Your task to perform on an android device: Go to notification settings Image 0: 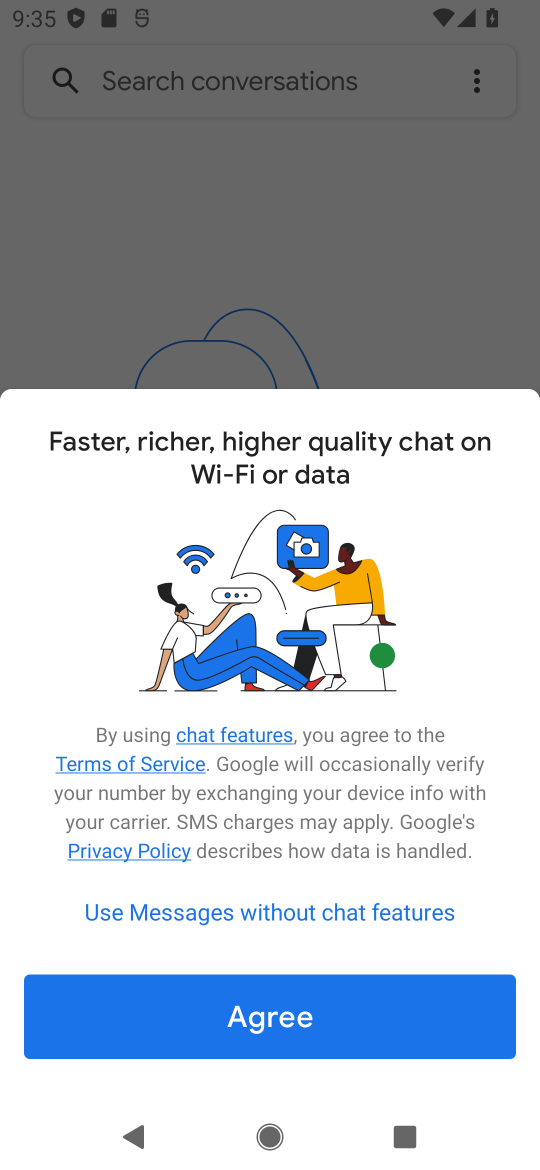
Step 0: press home button
Your task to perform on an android device: Go to notification settings Image 1: 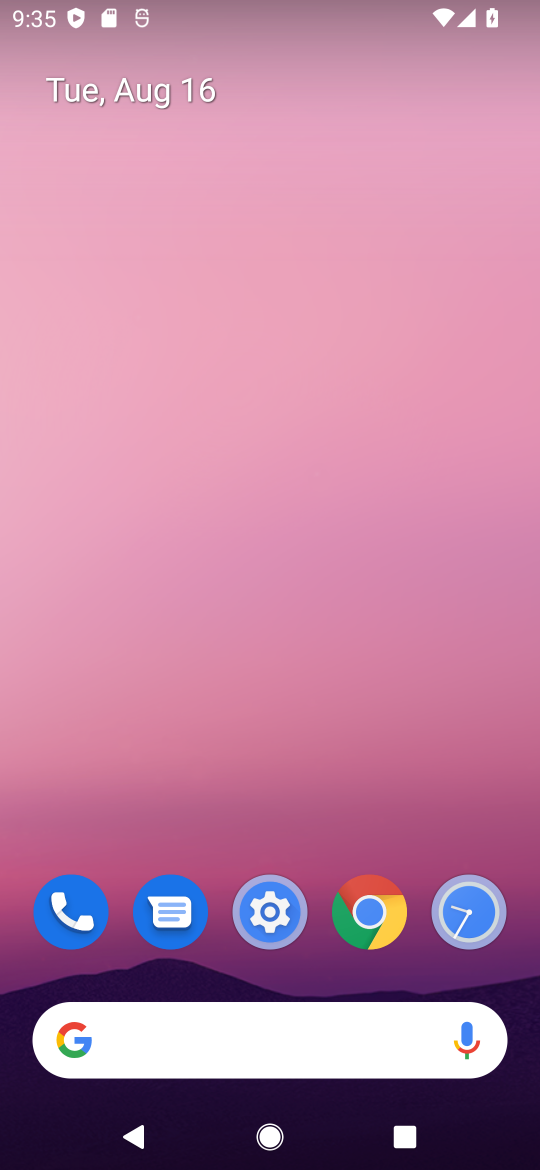
Step 1: click (266, 900)
Your task to perform on an android device: Go to notification settings Image 2: 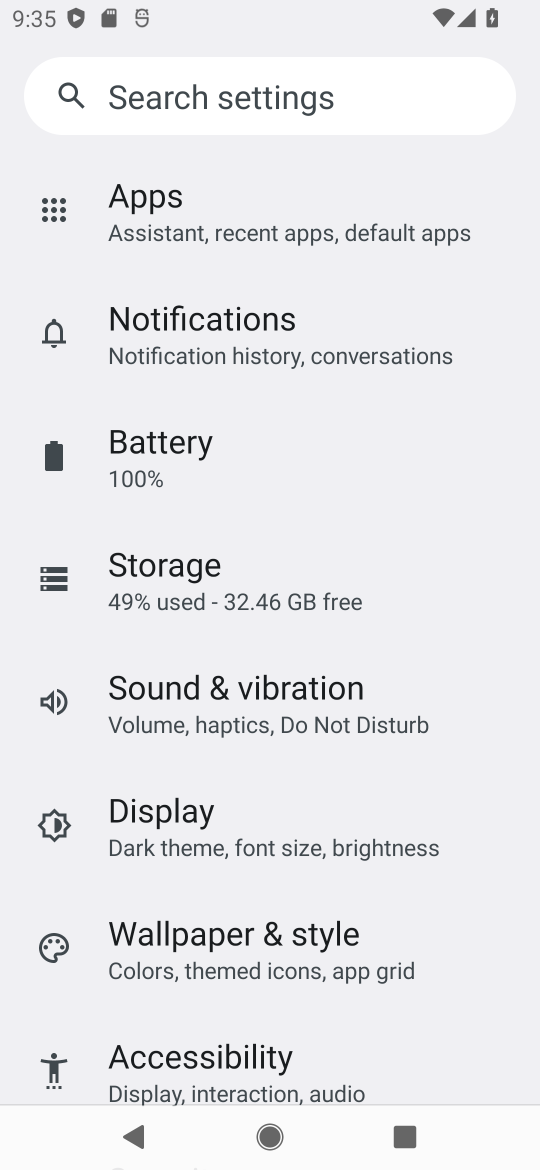
Step 2: click (177, 304)
Your task to perform on an android device: Go to notification settings Image 3: 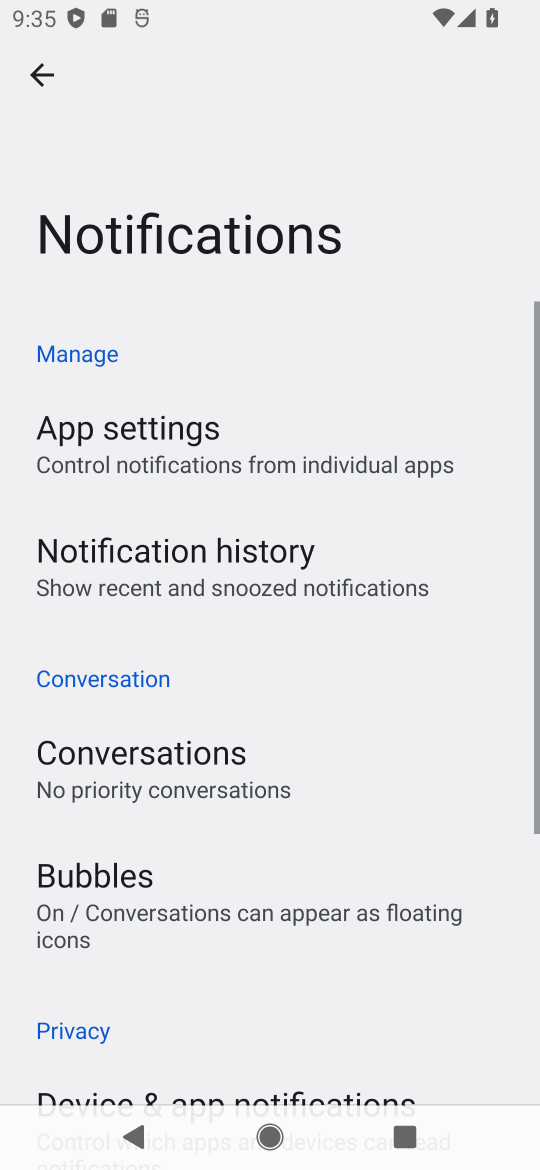
Step 3: task complete